Your task to perform on an android device: read, delete, or share a saved page in the chrome app Image 0: 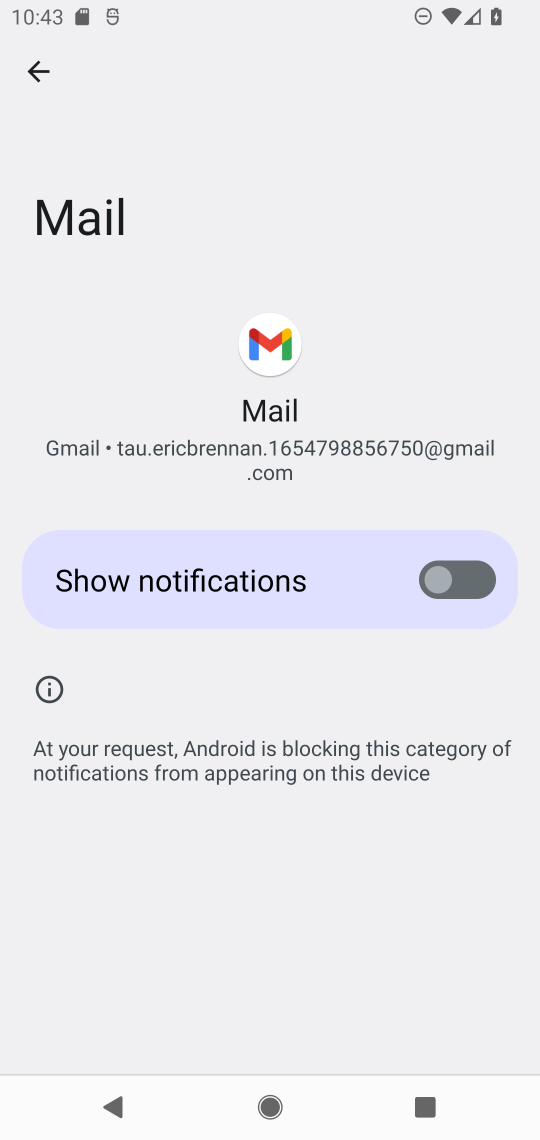
Step 0: press home button
Your task to perform on an android device: read, delete, or share a saved page in the chrome app Image 1: 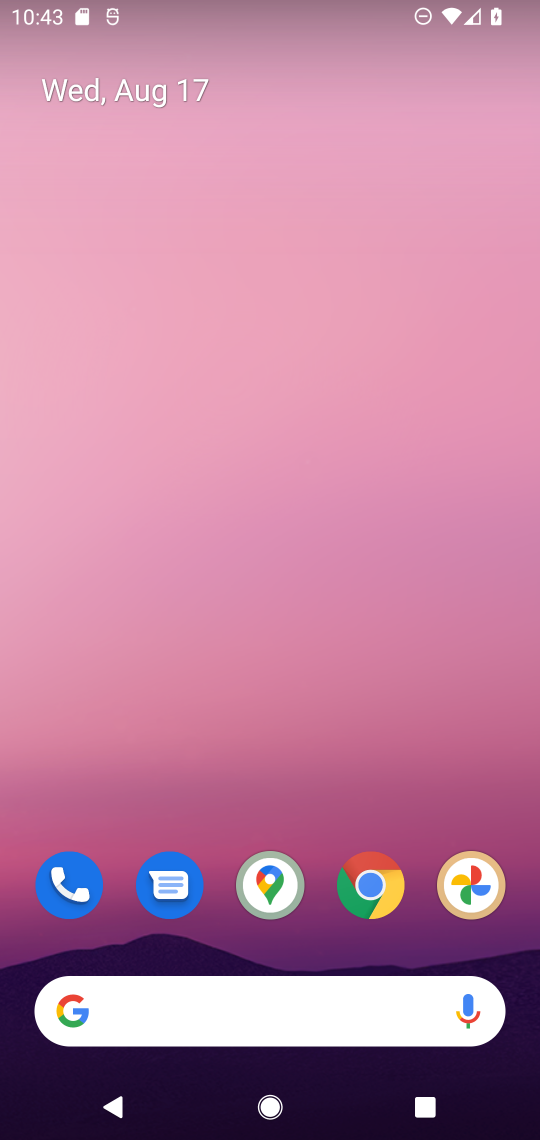
Step 1: click (371, 889)
Your task to perform on an android device: read, delete, or share a saved page in the chrome app Image 2: 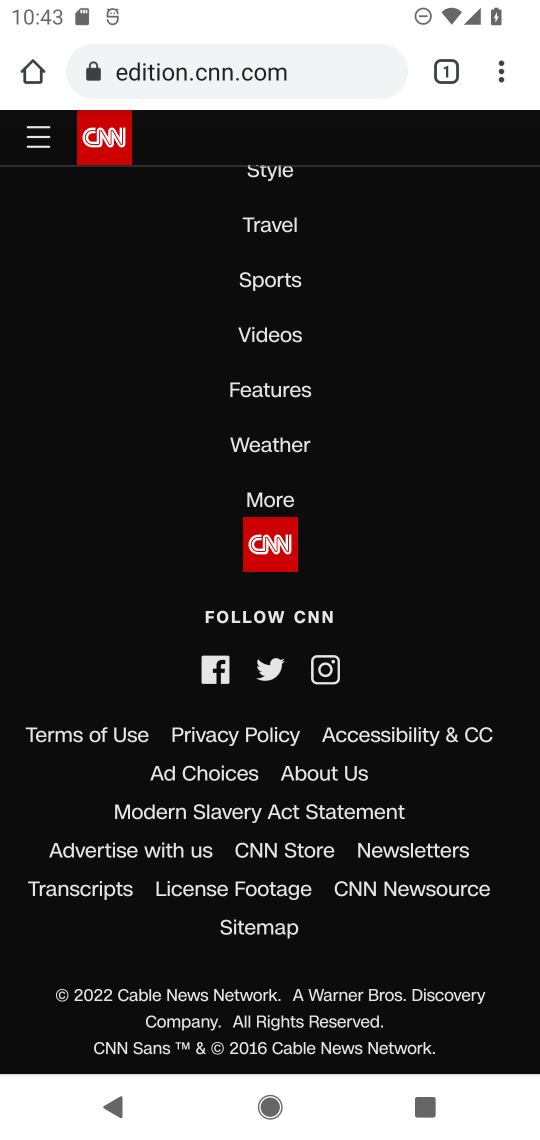
Step 2: click (498, 89)
Your task to perform on an android device: read, delete, or share a saved page in the chrome app Image 3: 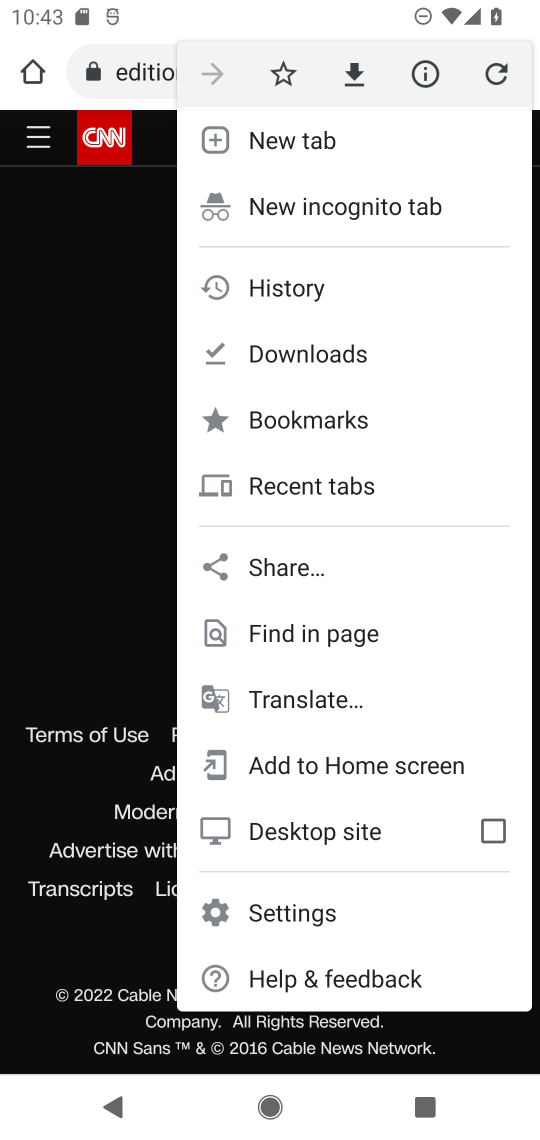
Step 3: click (284, 352)
Your task to perform on an android device: read, delete, or share a saved page in the chrome app Image 4: 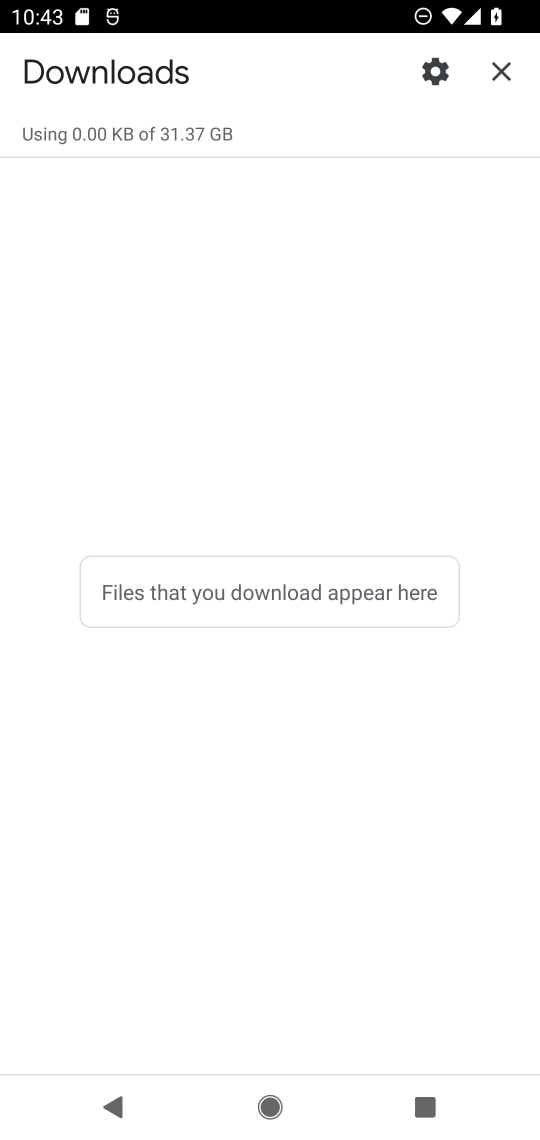
Step 4: click (429, 79)
Your task to perform on an android device: read, delete, or share a saved page in the chrome app Image 5: 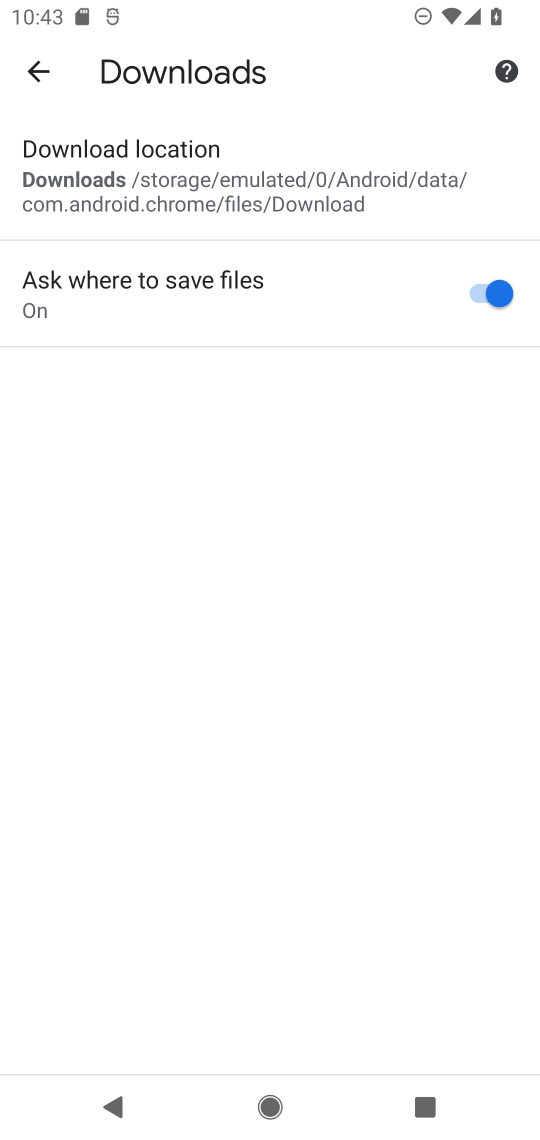
Step 5: task complete